Your task to perform on an android device: turn on wifi Image 0: 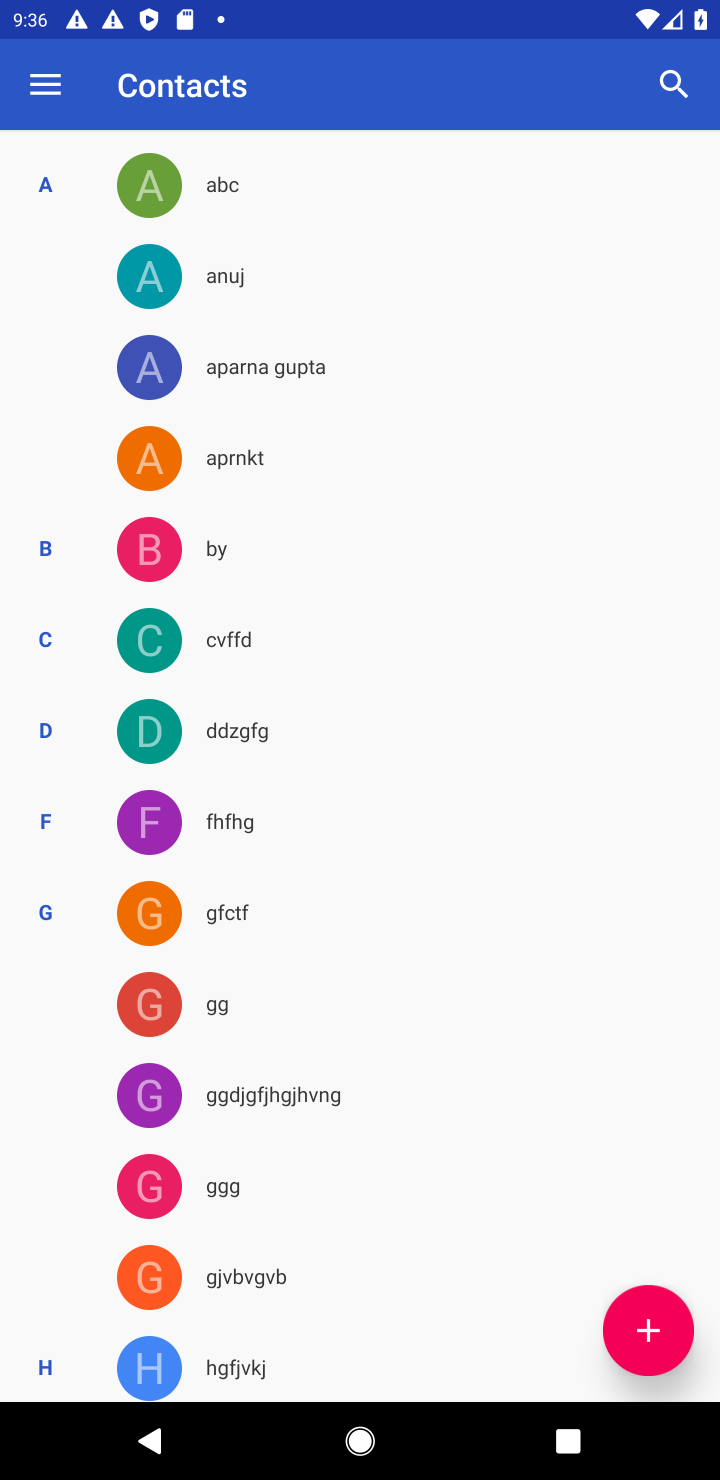
Step 0: press home button
Your task to perform on an android device: turn on wifi Image 1: 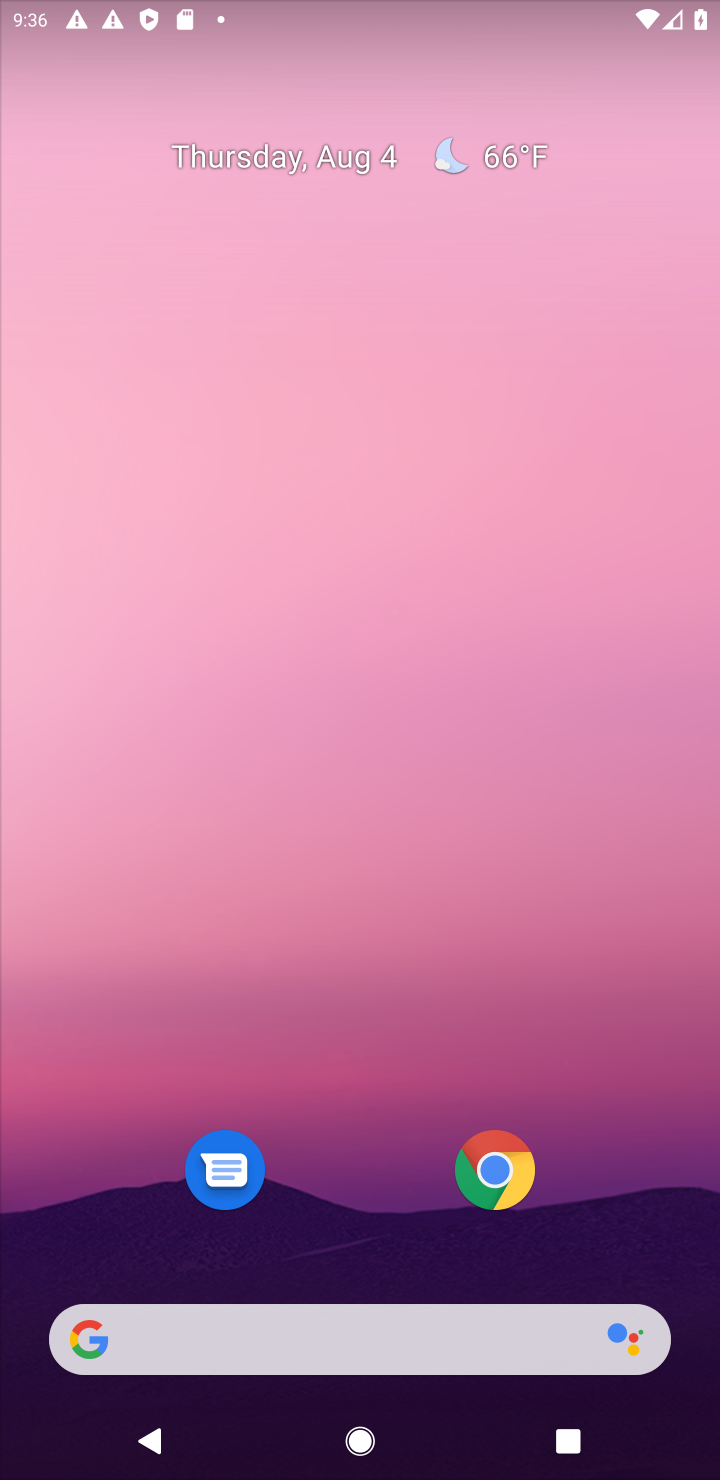
Step 1: drag from (354, 913) to (528, 0)
Your task to perform on an android device: turn on wifi Image 2: 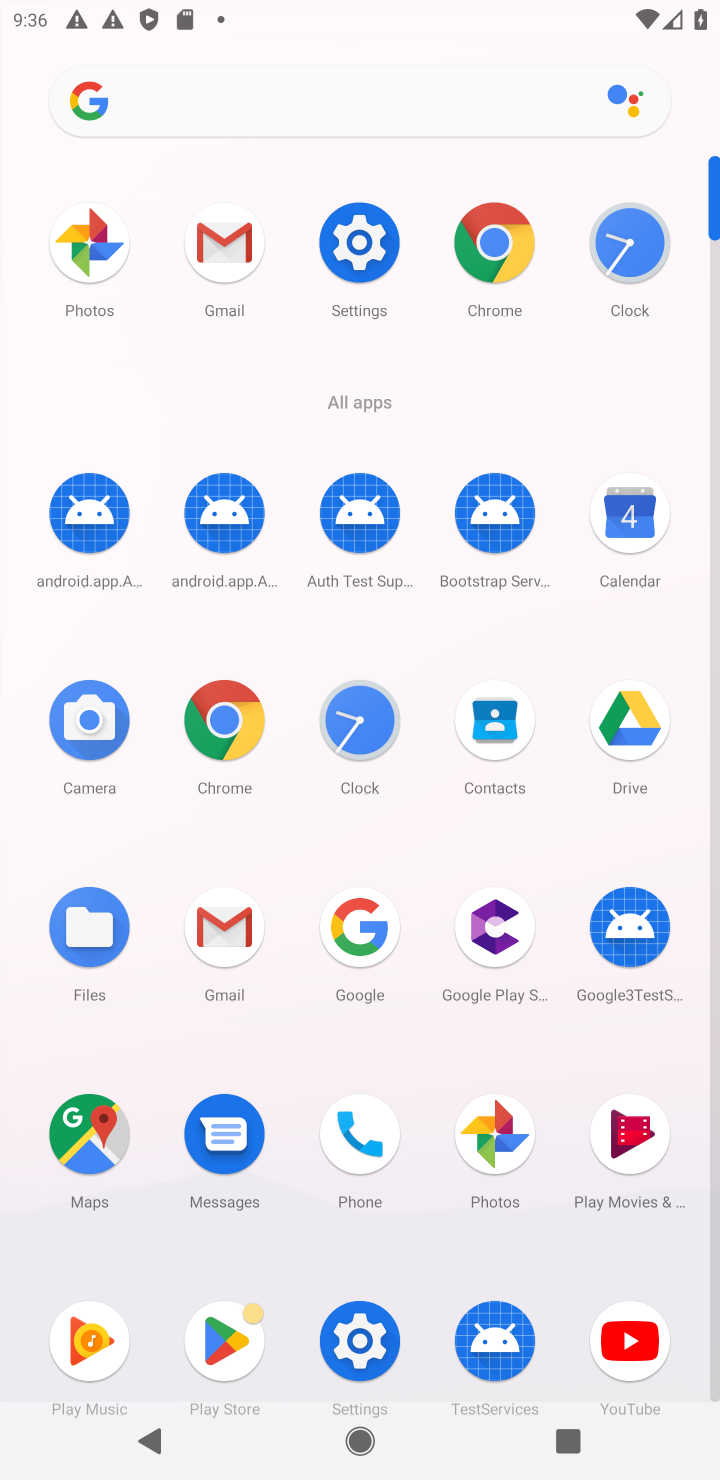
Step 2: click (371, 237)
Your task to perform on an android device: turn on wifi Image 3: 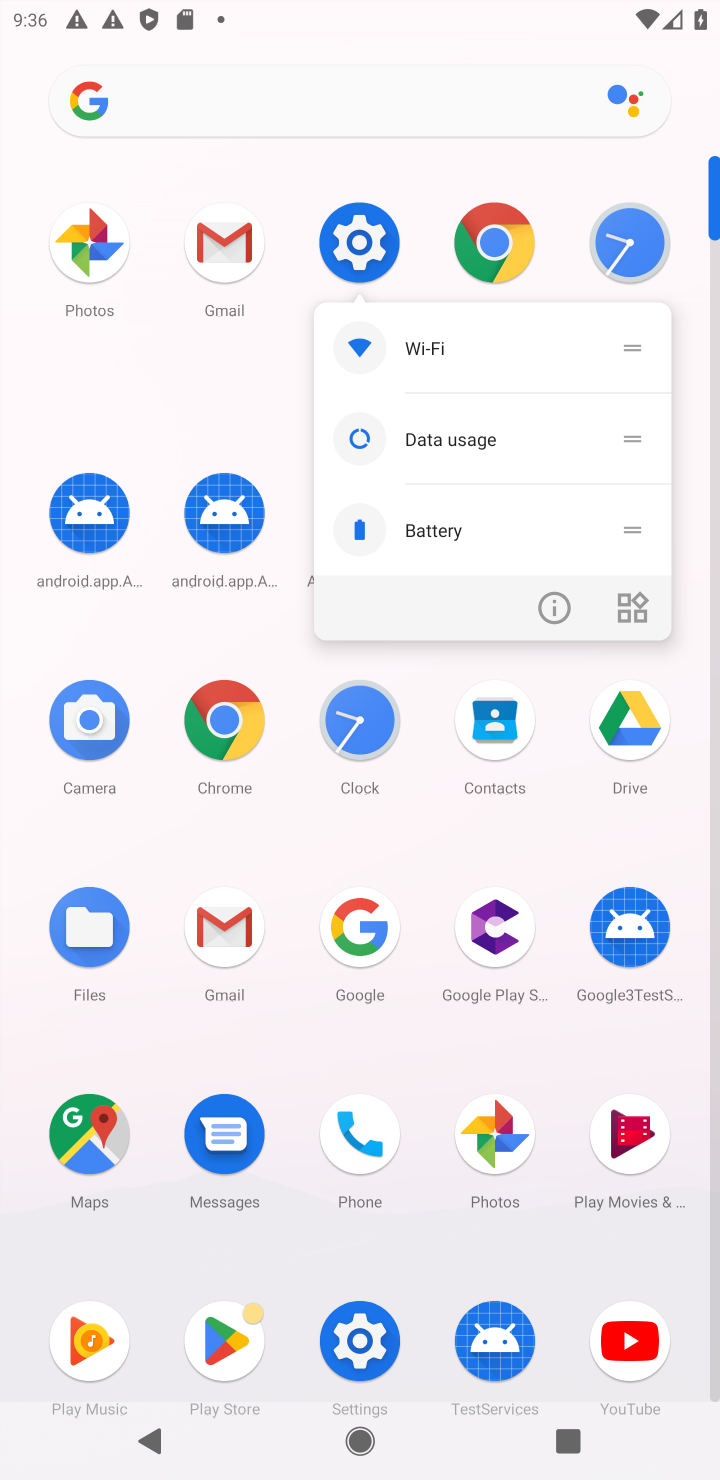
Step 3: click (371, 231)
Your task to perform on an android device: turn on wifi Image 4: 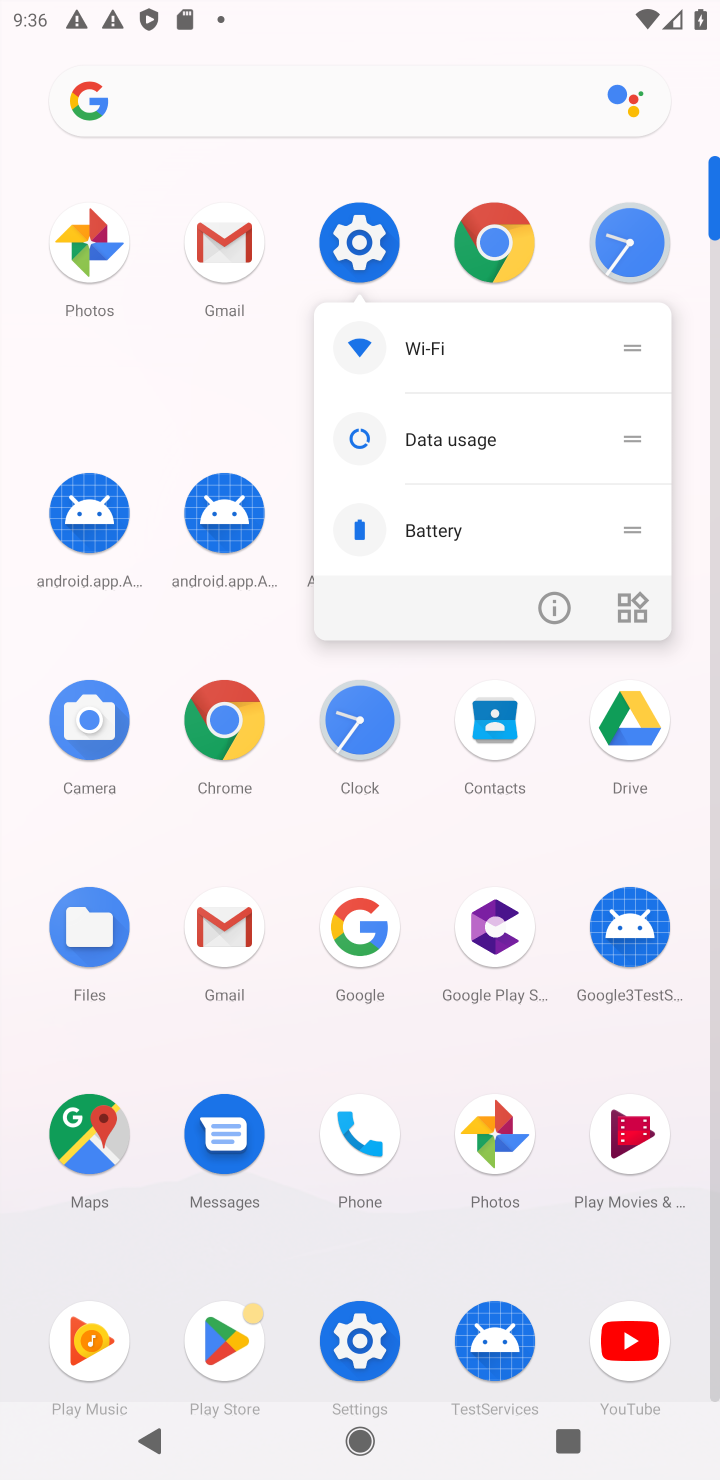
Step 4: click (363, 251)
Your task to perform on an android device: turn on wifi Image 5: 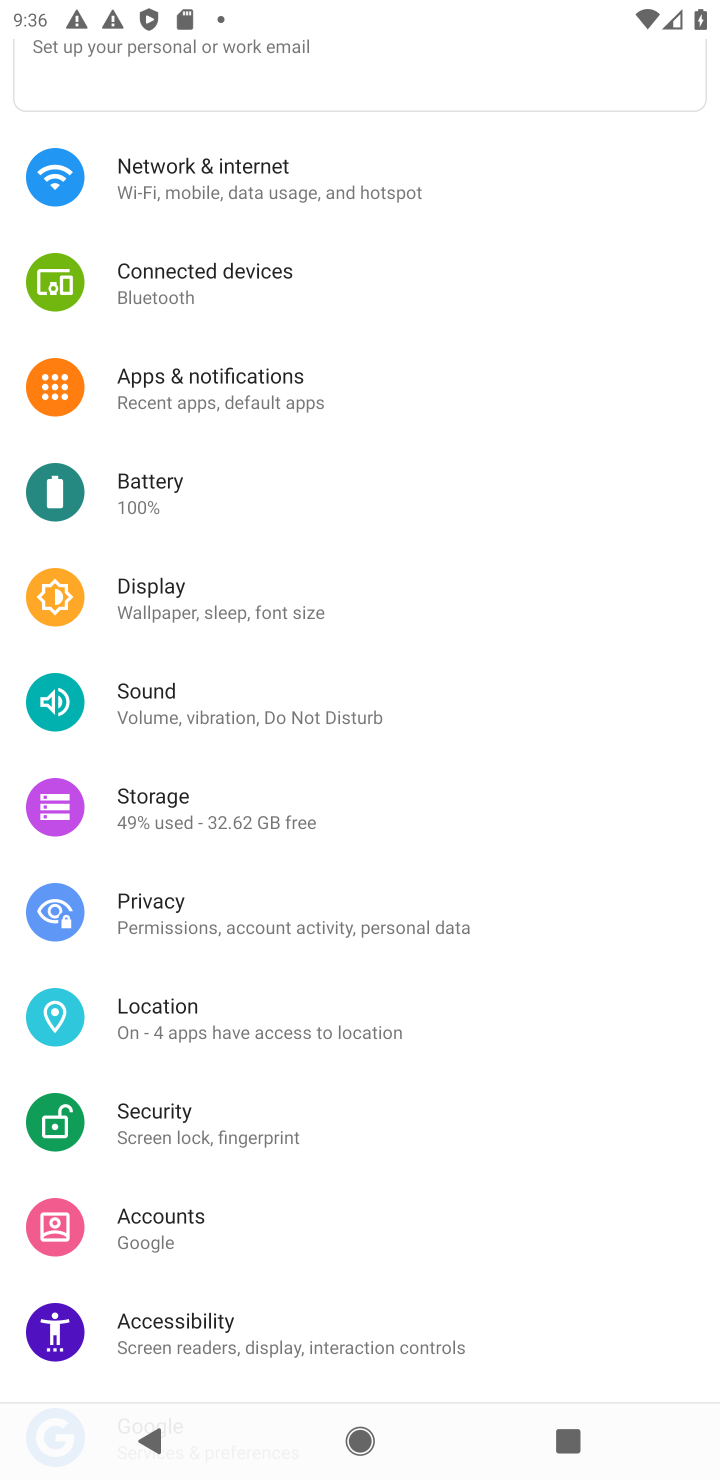
Step 5: click (158, 1144)
Your task to perform on an android device: turn on wifi Image 6: 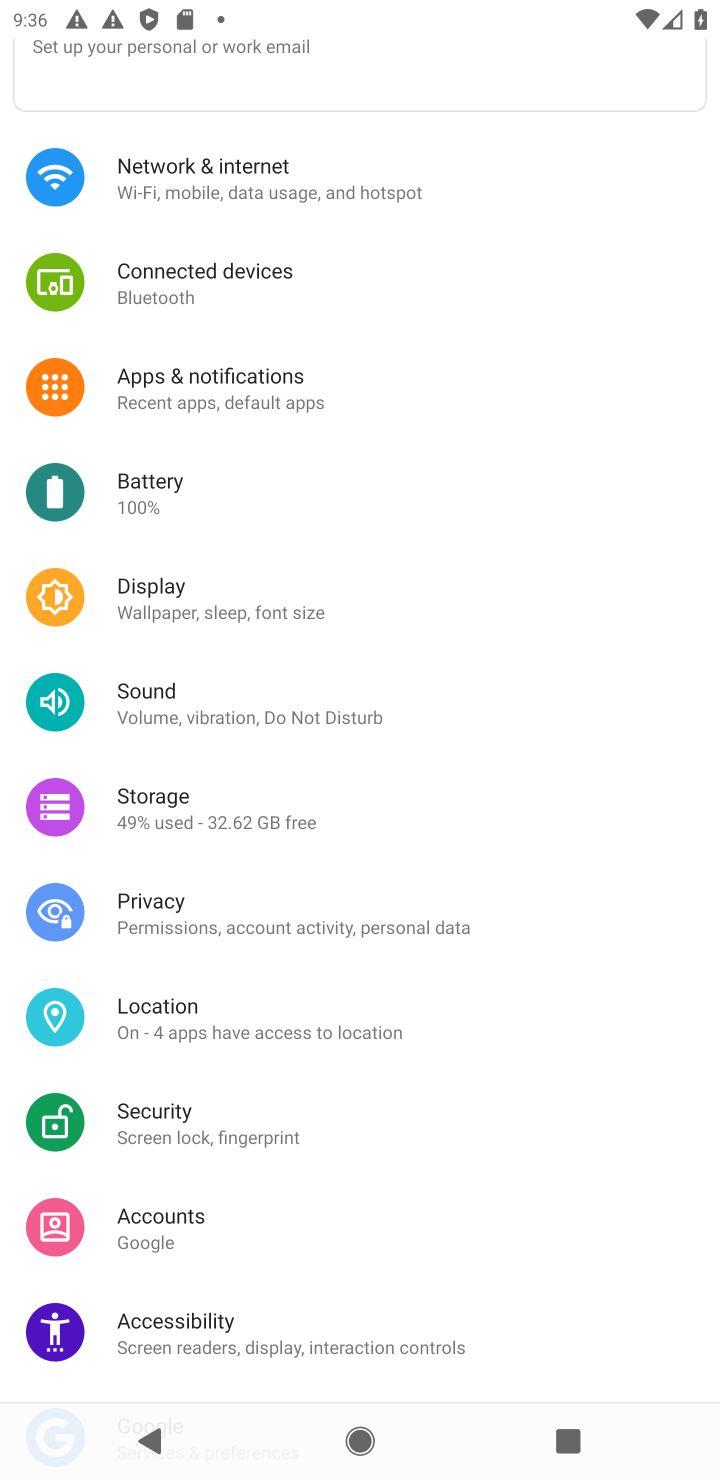
Step 6: drag from (238, 369) to (289, 1148)
Your task to perform on an android device: turn on wifi Image 7: 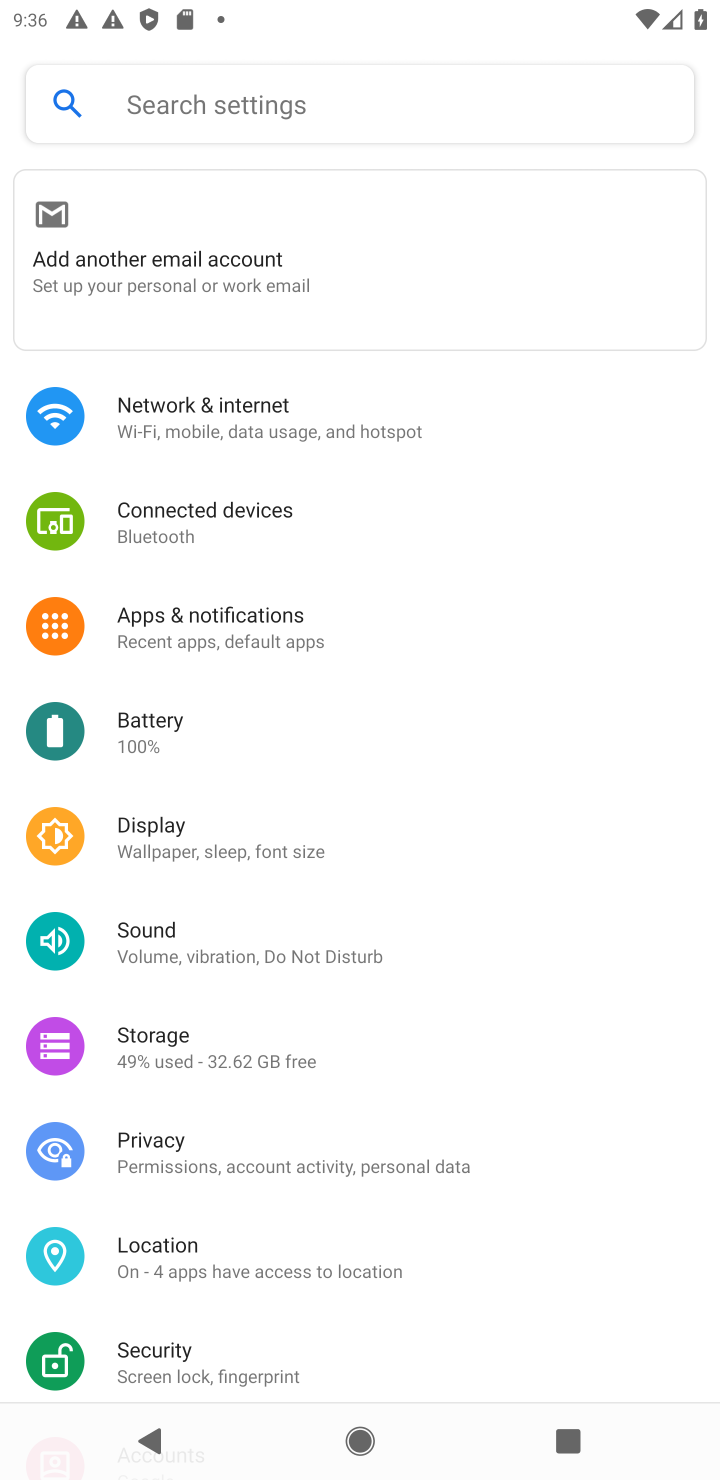
Step 7: click (233, 410)
Your task to perform on an android device: turn on wifi Image 8: 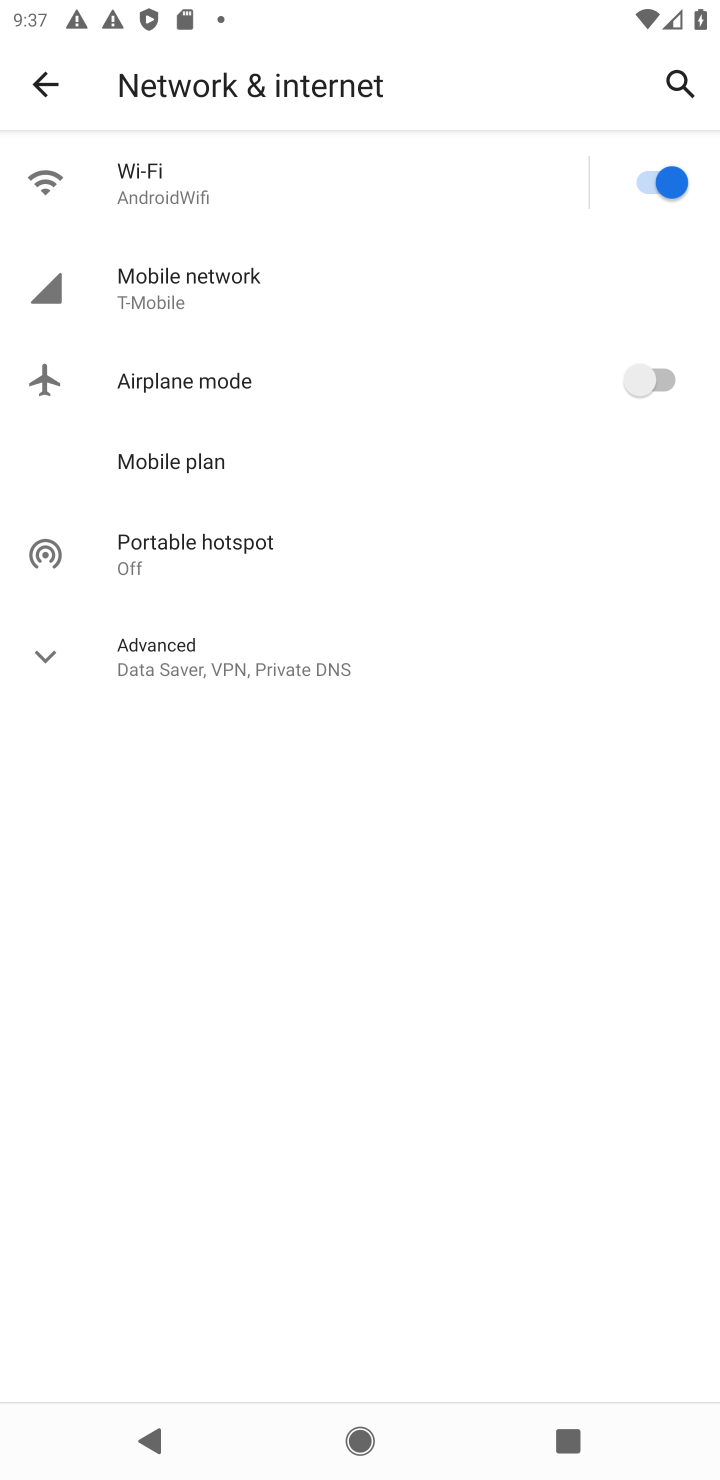
Step 8: task complete